Your task to perform on an android device: Go to eBay Image 0: 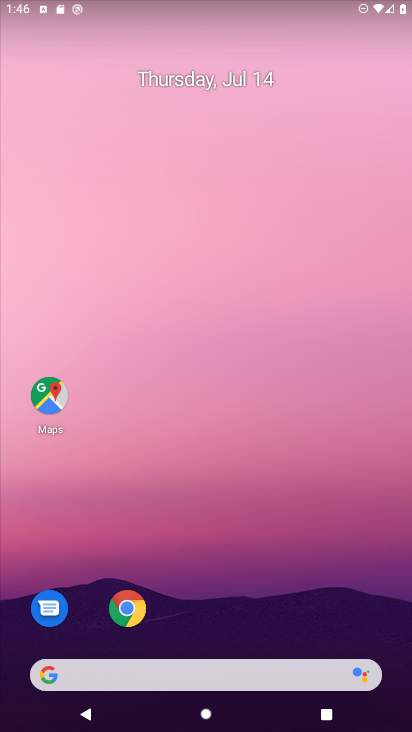
Step 0: click (124, 606)
Your task to perform on an android device: Go to eBay Image 1: 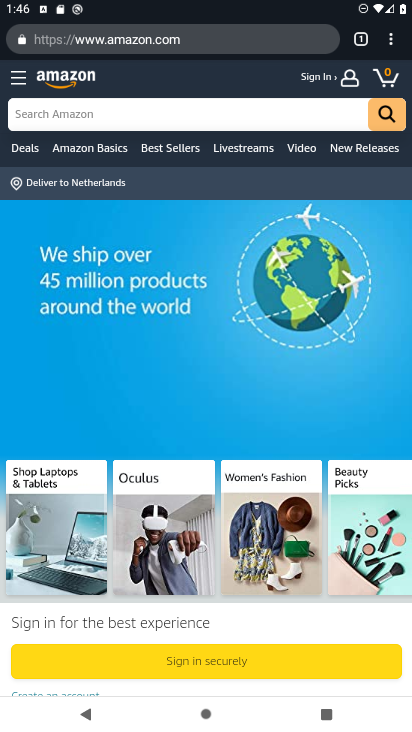
Step 1: click (205, 39)
Your task to perform on an android device: Go to eBay Image 2: 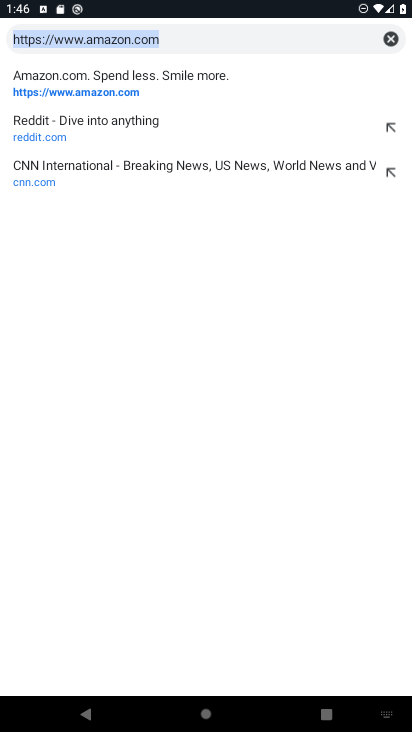
Step 2: click (392, 36)
Your task to perform on an android device: Go to eBay Image 3: 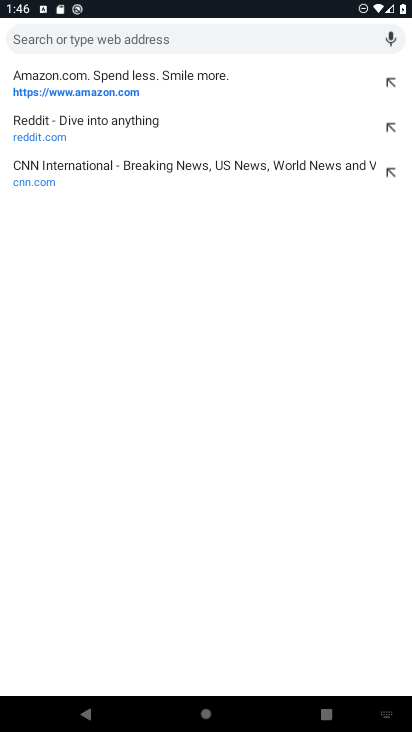
Step 3: type "eBay"
Your task to perform on an android device: Go to eBay Image 4: 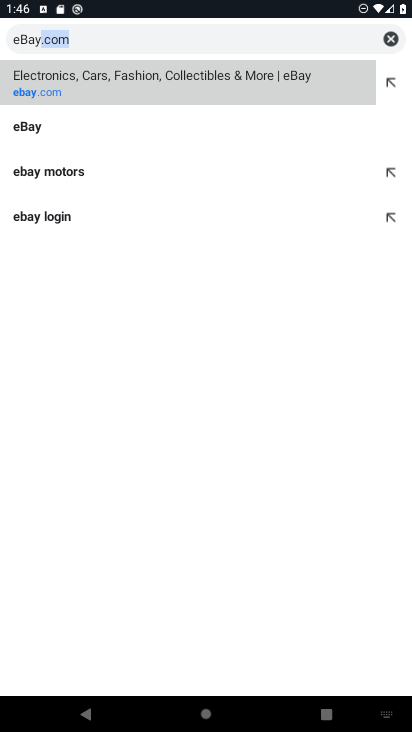
Step 4: click (62, 70)
Your task to perform on an android device: Go to eBay Image 5: 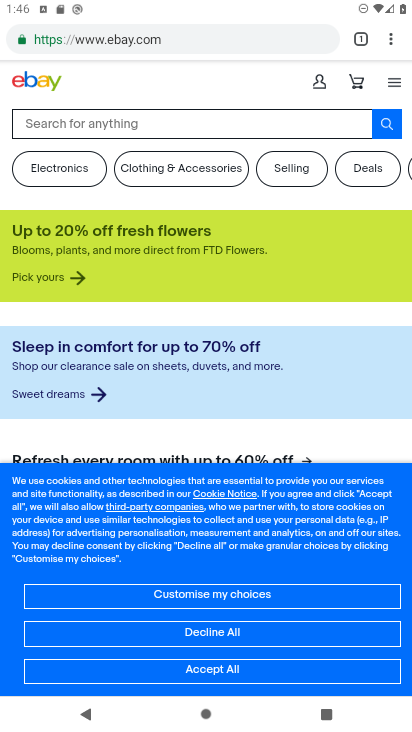
Step 5: task complete